Your task to perform on an android device: open wifi settings Image 0: 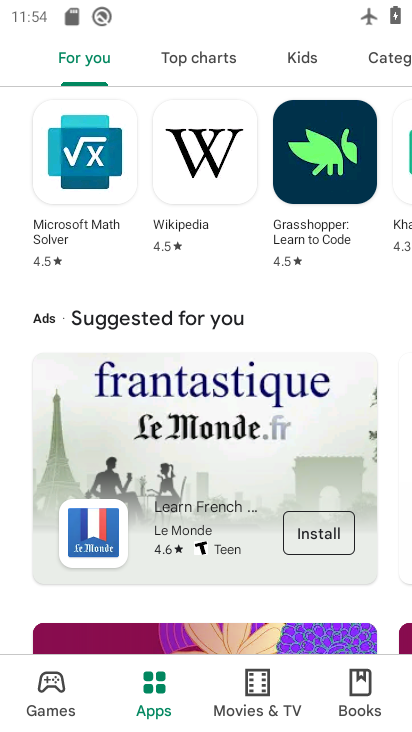
Step 0: press home button
Your task to perform on an android device: open wifi settings Image 1: 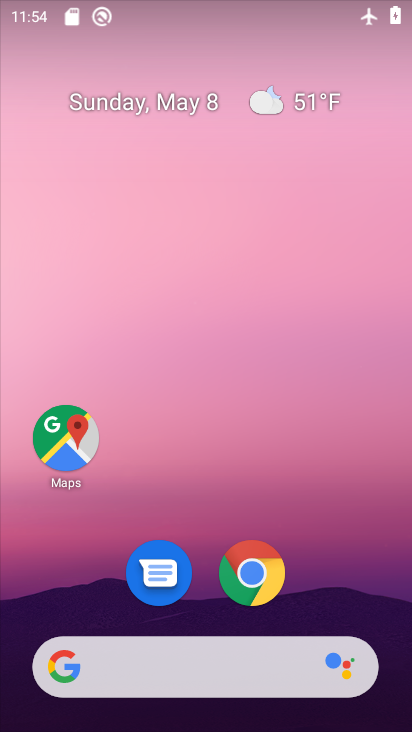
Step 1: drag from (176, 645) to (205, 303)
Your task to perform on an android device: open wifi settings Image 2: 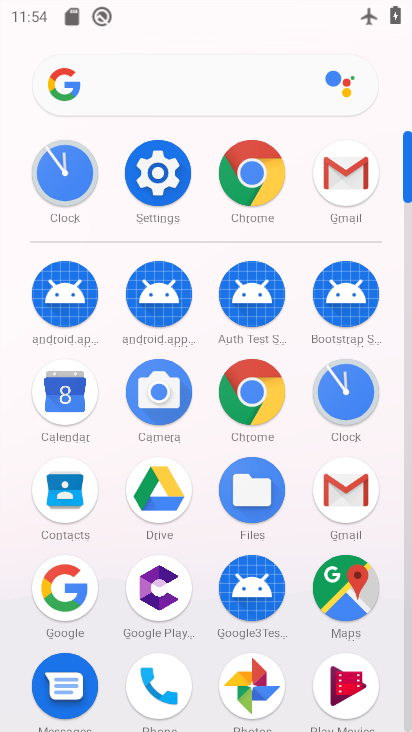
Step 2: click (149, 182)
Your task to perform on an android device: open wifi settings Image 3: 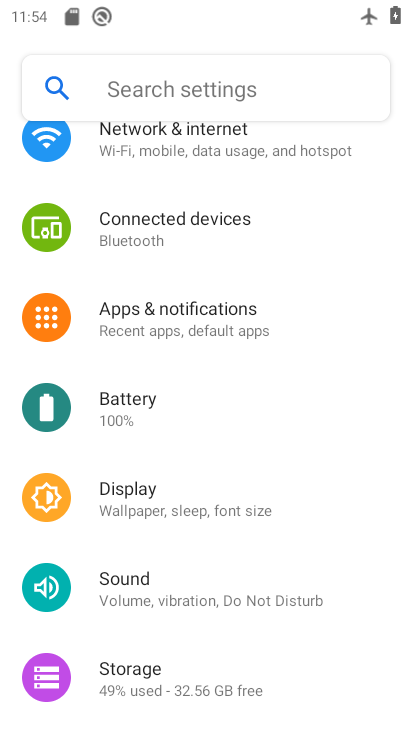
Step 3: click (166, 149)
Your task to perform on an android device: open wifi settings Image 4: 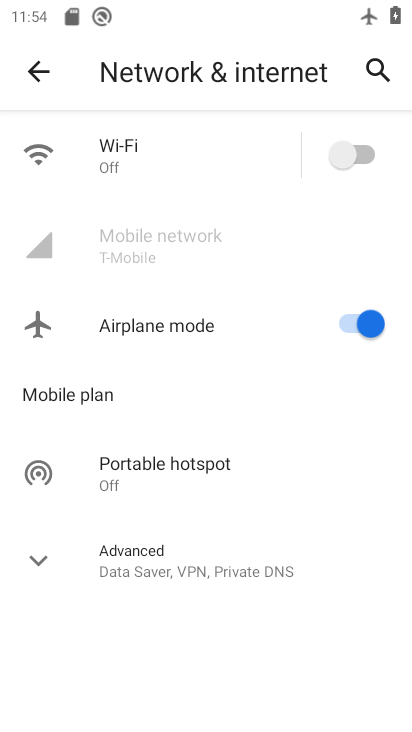
Step 4: click (161, 164)
Your task to perform on an android device: open wifi settings Image 5: 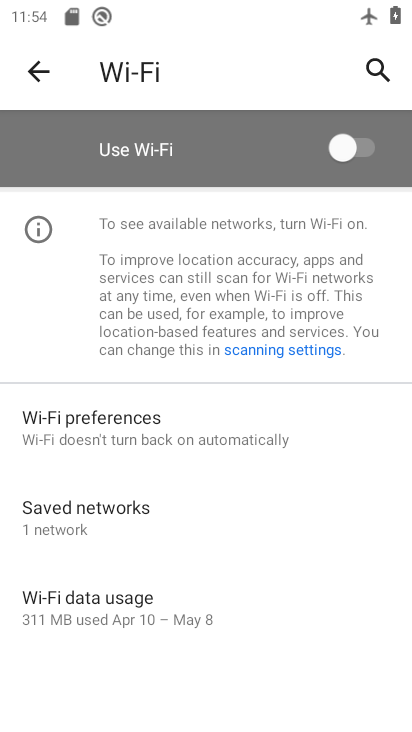
Step 5: task complete